Your task to perform on an android device: toggle notifications settings in the gmail app Image 0: 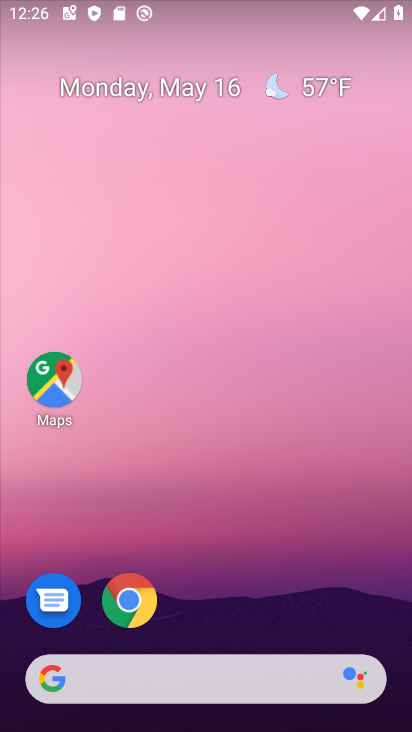
Step 0: drag from (177, 575) to (242, 39)
Your task to perform on an android device: toggle notifications settings in the gmail app Image 1: 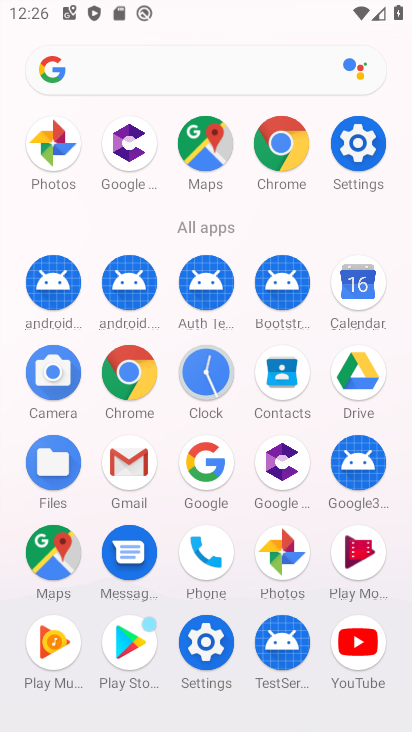
Step 1: click (126, 465)
Your task to perform on an android device: toggle notifications settings in the gmail app Image 2: 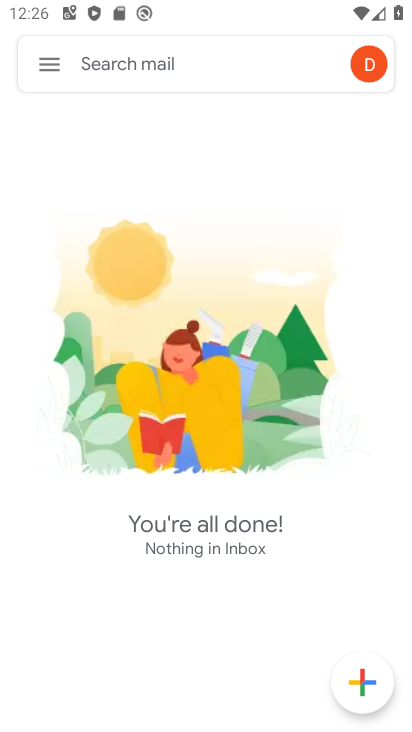
Step 2: click (50, 63)
Your task to perform on an android device: toggle notifications settings in the gmail app Image 3: 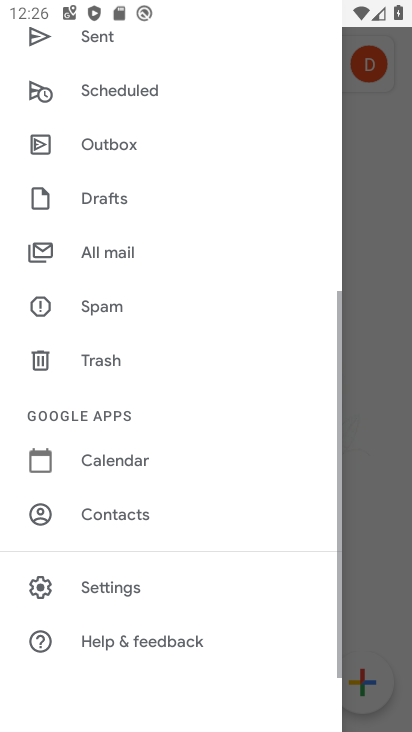
Step 3: click (159, 595)
Your task to perform on an android device: toggle notifications settings in the gmail app Image 4: 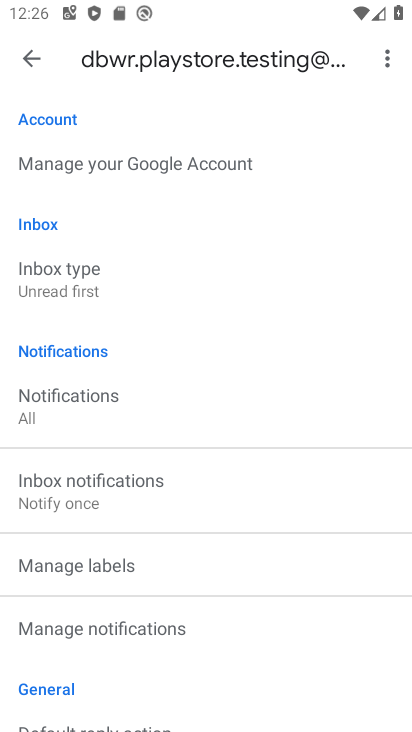
Step 4: click (107, 637)
Your task to perform on an android device: toggle notifications settings in the gmail app Image 5: 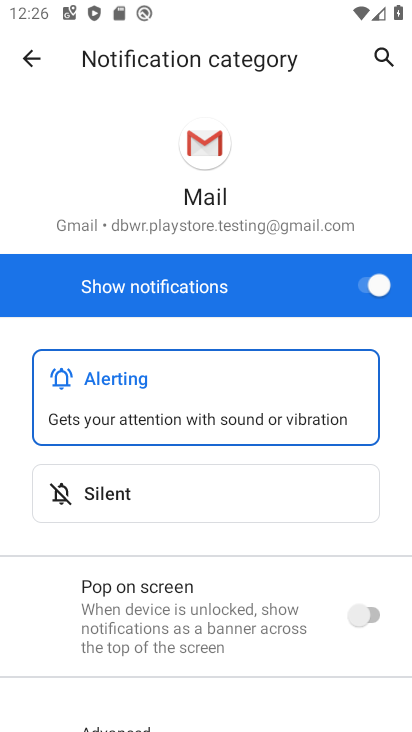
Step 5: click (381, 286)
Your task to perform on an android device: toggle notifications settings in the gmail app Image 6: 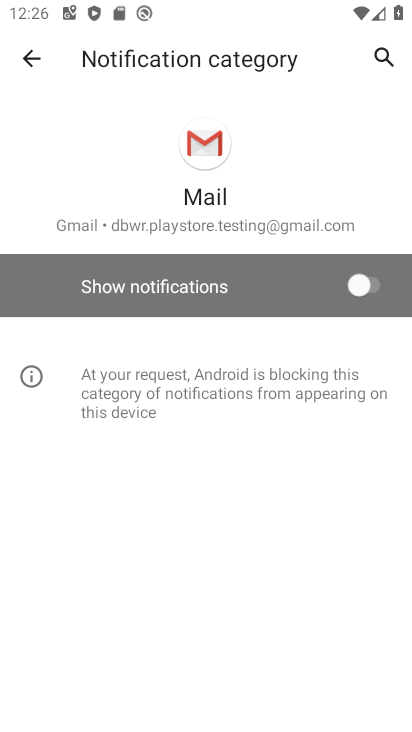
Step 6: task complete